Your task to perform on an android device: Open calendar and show me the third week of next month Image 0: 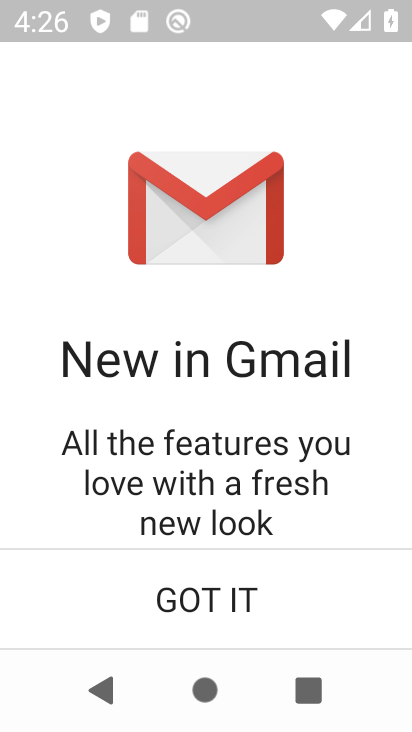
Step 0: press home button
Your task to perform on an android device: Open calendar and show me the third week of next month Image 1: 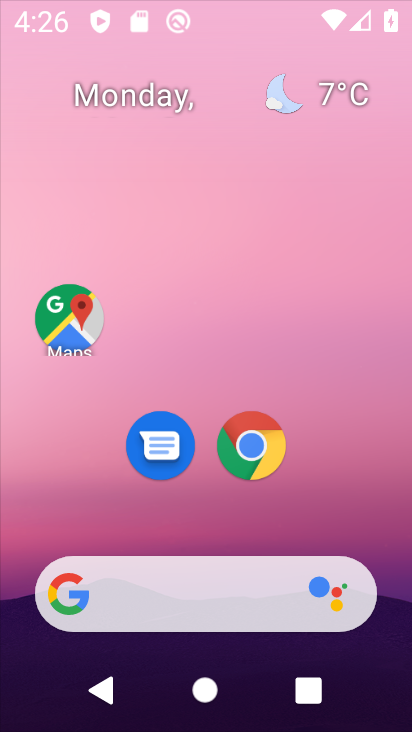
Step 1: press home button
Your task to perform on an android device: Open calendar and show me the third week of next month Image 2: 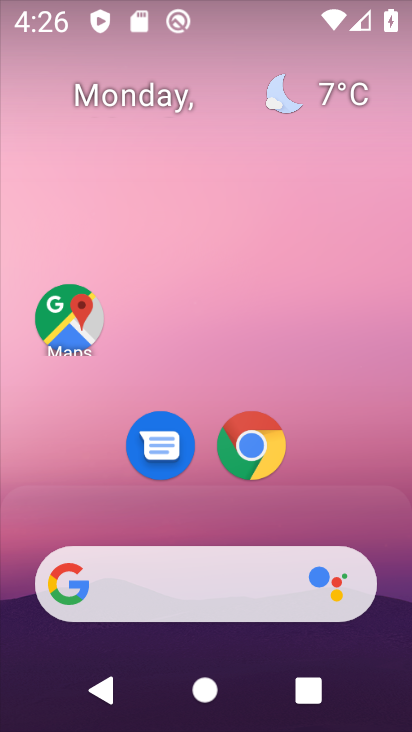
Step 2: drag from (118, 556) to (206, 32)
Your task to perform on an android device: Open calendar and show me the third week of next month Image 3: 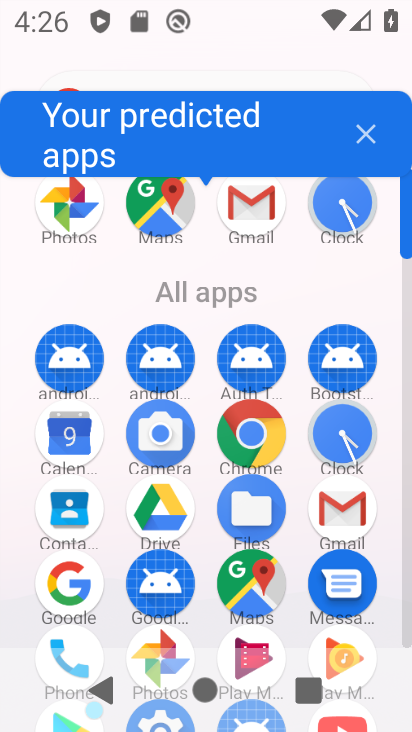
Step 3: click (92, 447)
Your task to perform on an android device: Open calendar and show me the third week of next month Image 4: 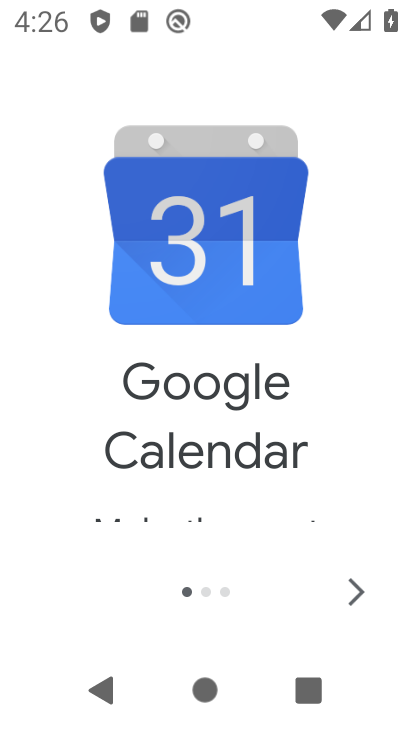
Step 4: click (354, 588)
Your task to perform on an android device: Open calendar and show me the third week of next month Image 5: 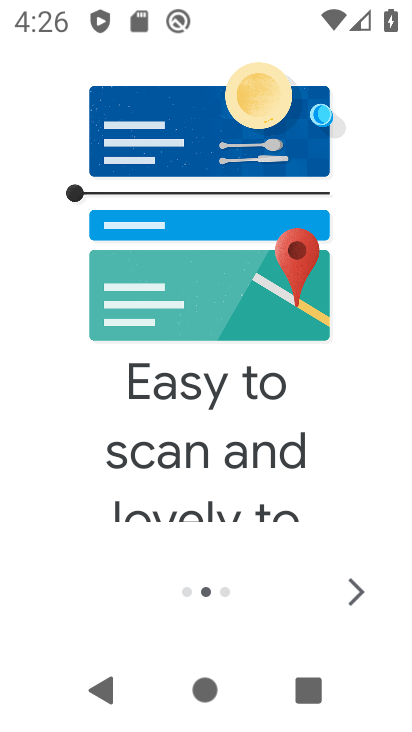
Step 5: click (354, 588)
Your task to perform on an android device: Open calendar and show me the third week of next month Image 6: 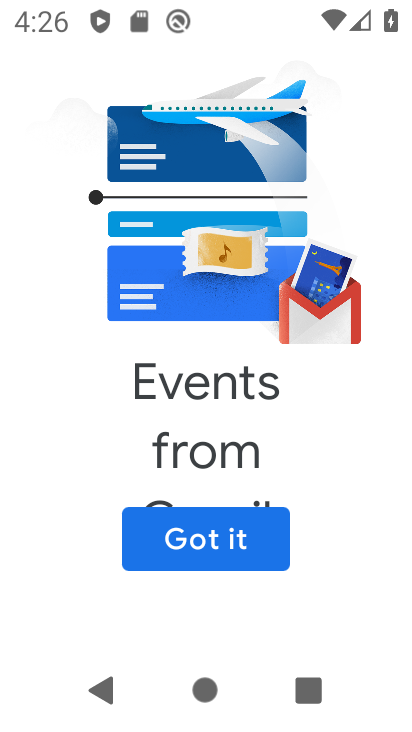
Step 6: click (232, 563)
Your task to perform on an android device: Open calendar and show me the third week of next month Image 7: 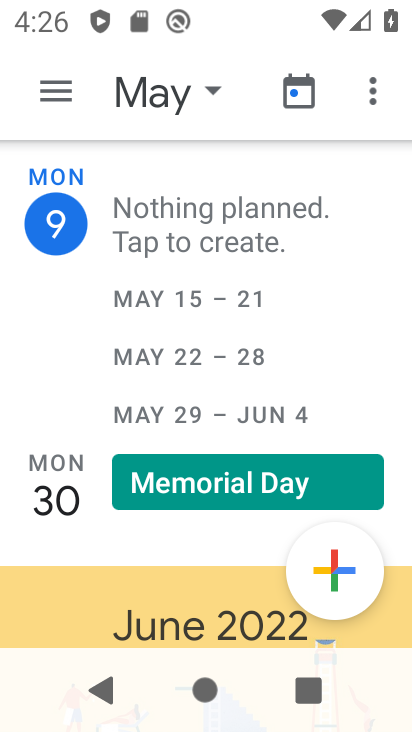
Step 7: click (159, 89)
Your task to perform on an android device: Open calendar and show me the third week of next month Image 8: 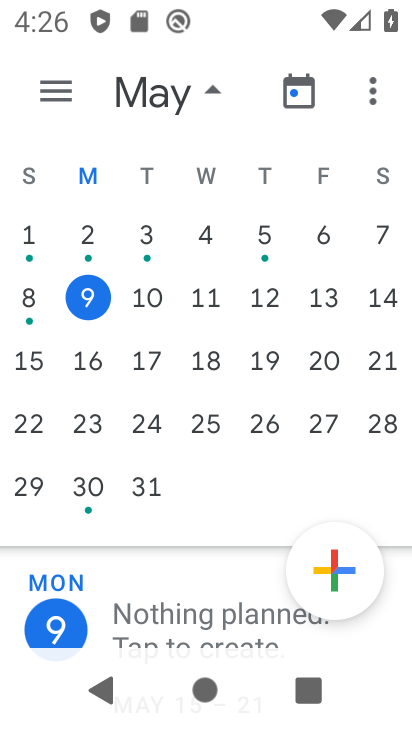
Step 8: drag from (364, 497) to (2, 454)
Your task to perform on an android device: Open calendar and show me the third week of next month Image 9: 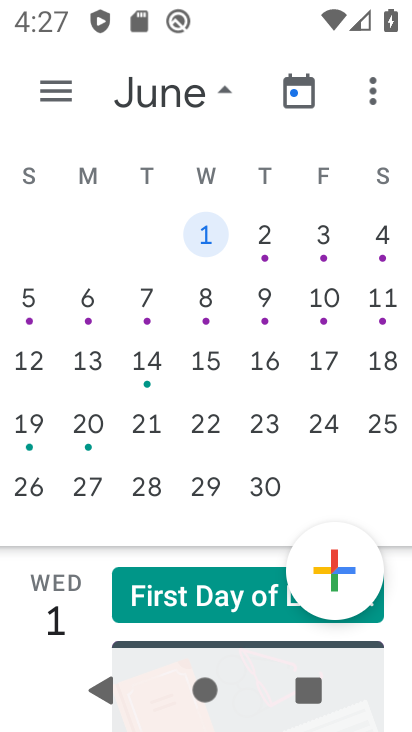
Step 9: click (48, 429)
Your task to perform on an android device: Open calendar and show me the third week of next month Image 10: 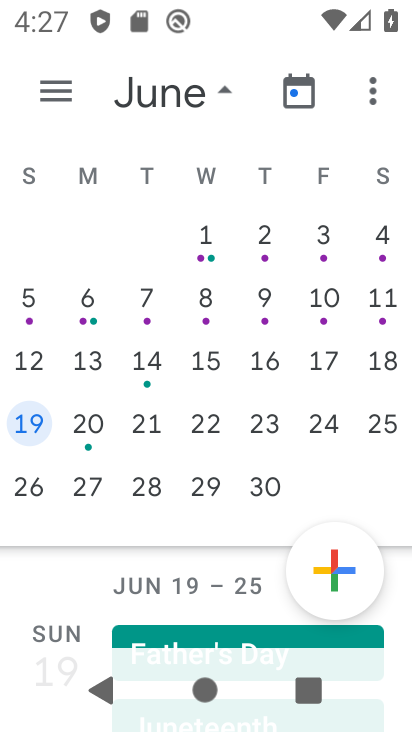
Step 10: click (69, 96)
Your task to perform on an android device: Open calendar and show me the third week of next month Image 11: 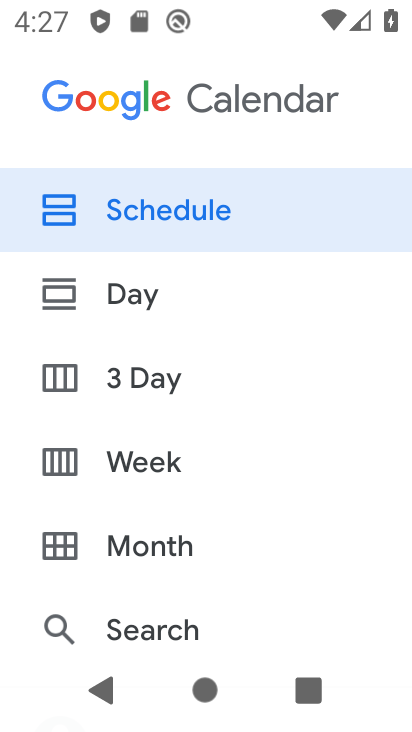
Step 11: click (169, 469)
Your task to perform on an android device: Open calendar and show me the third week of next month Image 12: 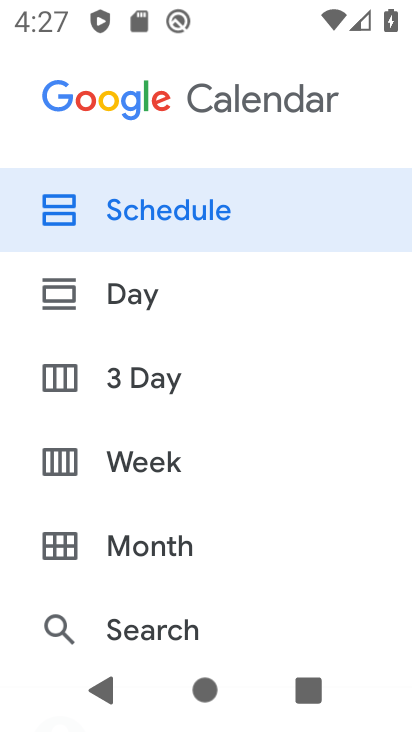
Step 12: click (169, 469)
Your task to perform on an android device: Open calendar and show me the third week of next month Image 13: 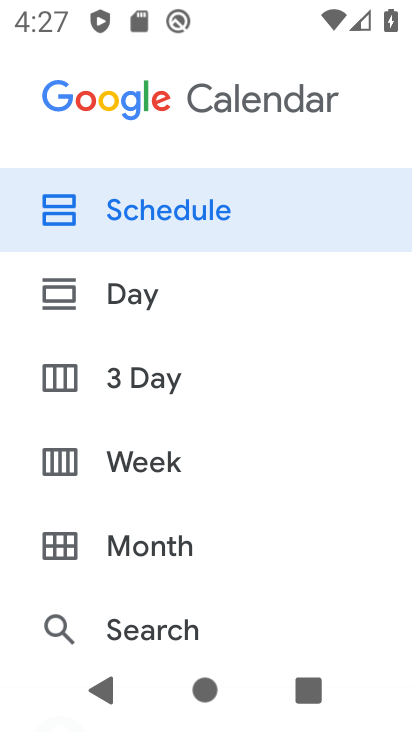
Step 13: click (257, 444)
Your task to perform on an android device: Open calendar and show me the third week of next month Image 14: 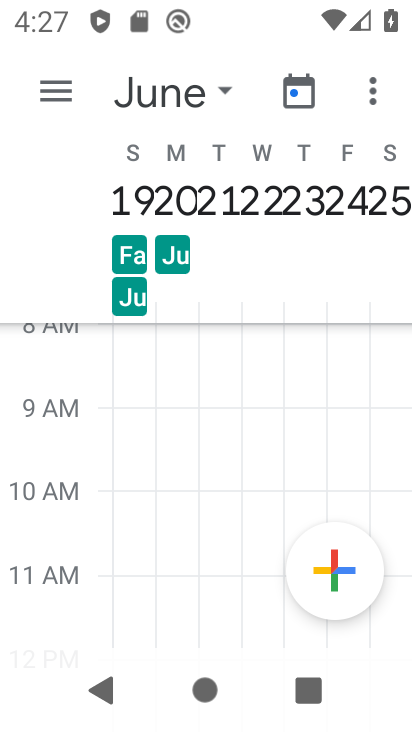
Step 14: task complete